Your task to perform on an android device: Open sound settings Image 0: 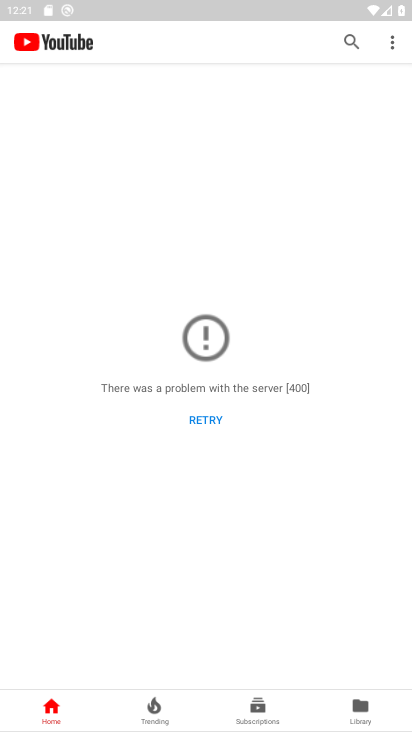
Step 0: press home button
Your task to perform on an android device: Open sound settings Image 1: 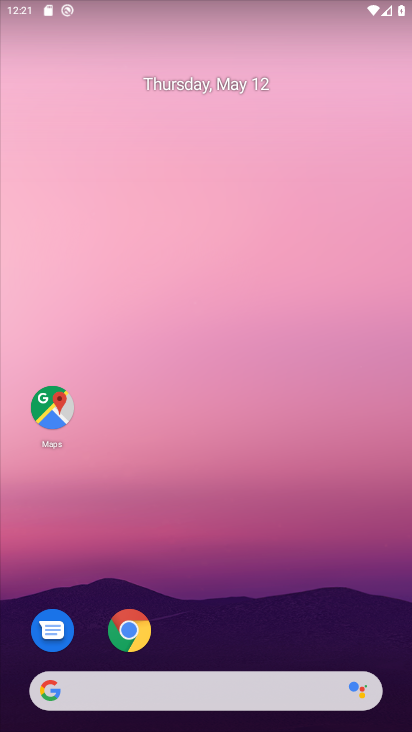
Step 1: drag from (219, 586) to (280, 166)
Your task to perform on an android device: Open sound settings Image 2: 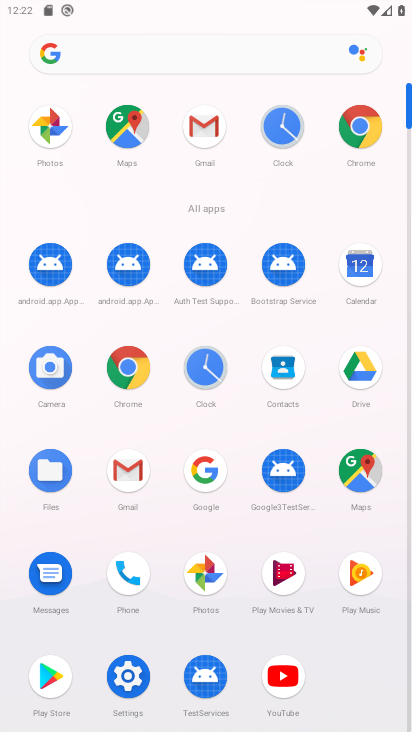
Step 2: click (124, 675)
Your task to perform on an android device: Open sound settings Image 3: 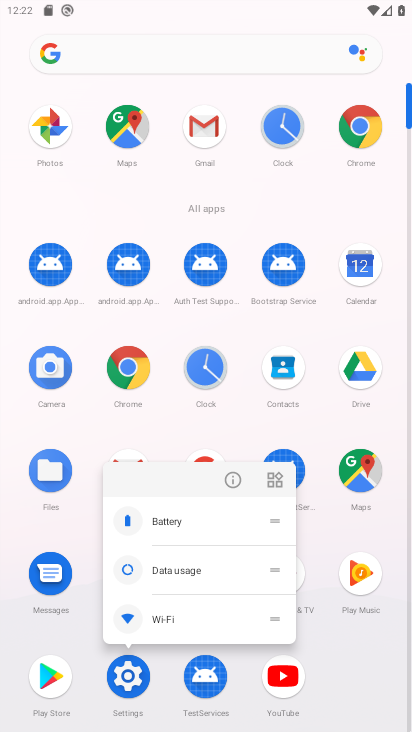
Step 3: click (136, 678)
Your task to perform on an android device: Open sound settings Image 4: 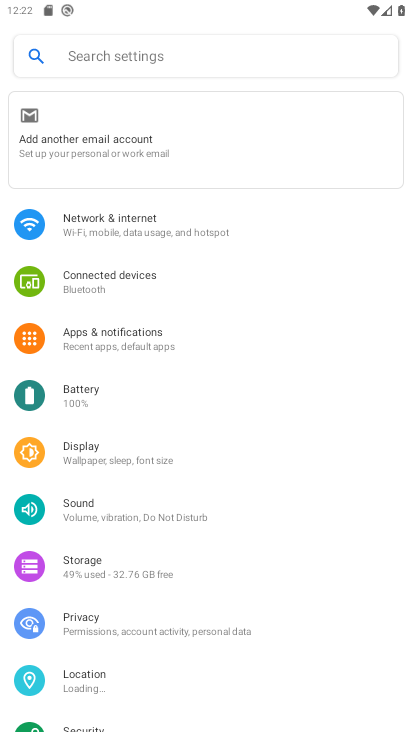
Step 4: click (97, 510)
Your task to perform on an android device: Open sound settings Image 5: 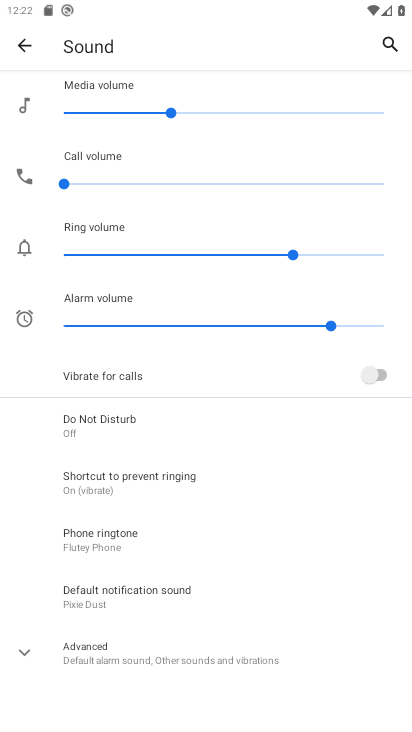
Step 5: task complete